Your task to perform on an android device: turn on wifi Image 0: 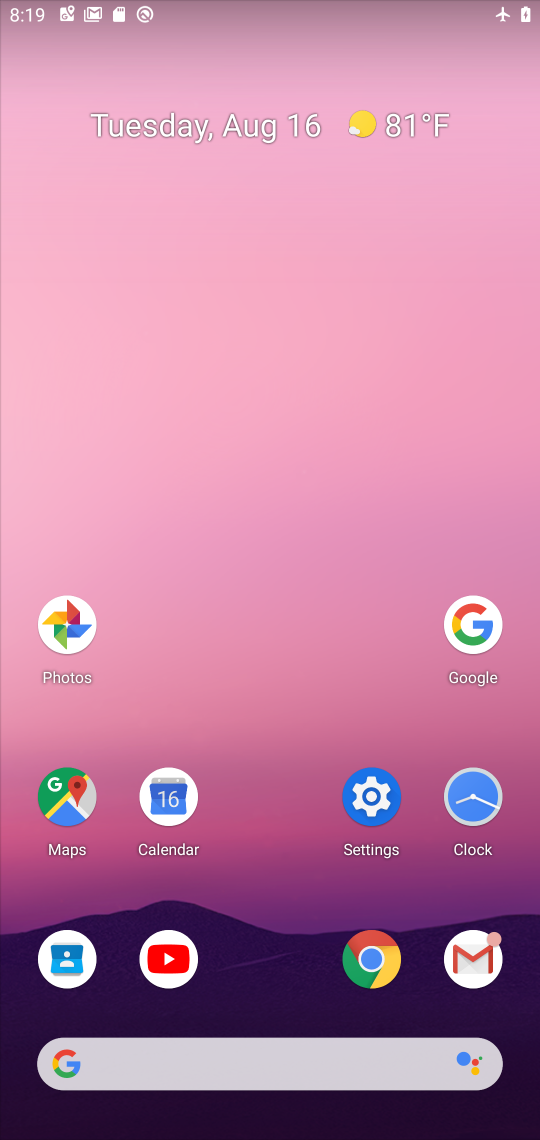
Step 0: click (371, 795)
Your task to perform on an android device: turn on wifi Image 1: 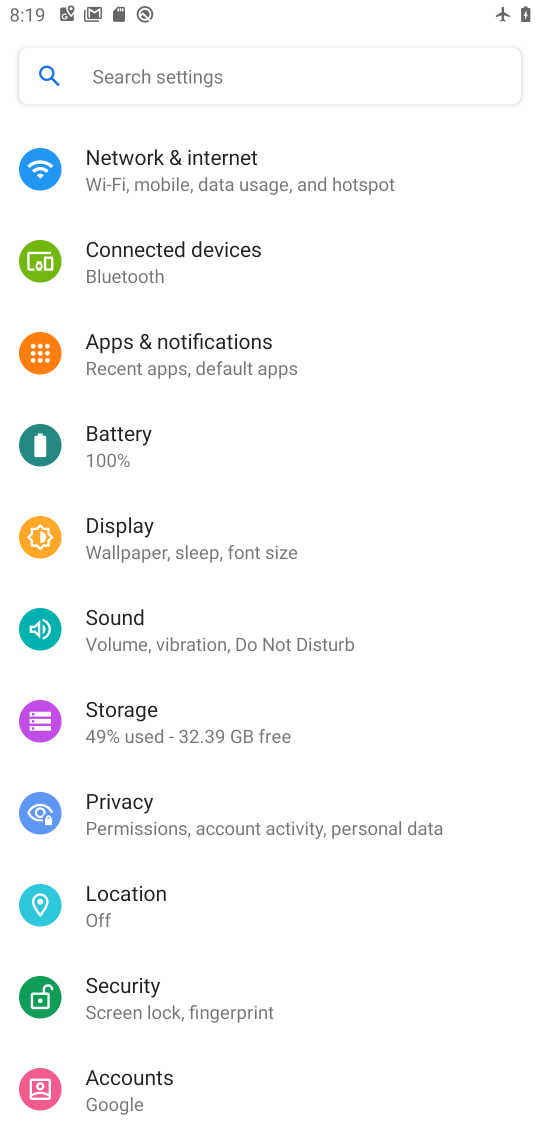
Step 1: click (180, 155)
Your task to perform on an android device: turn on wifi Image 2: 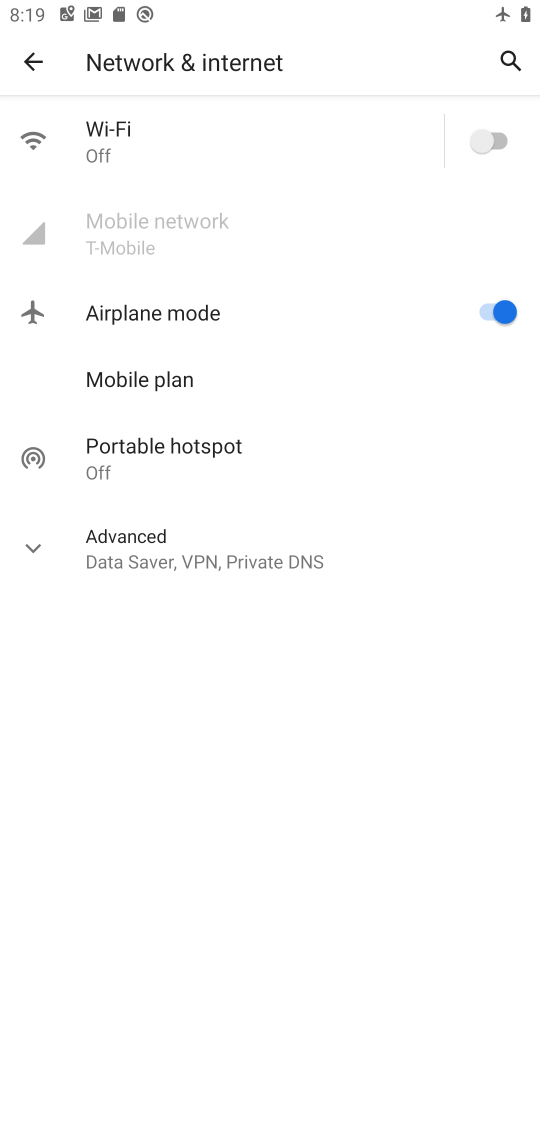
Step 2: click (486, 136)
Your task to perform on an android device: turn on wifi Image 3: 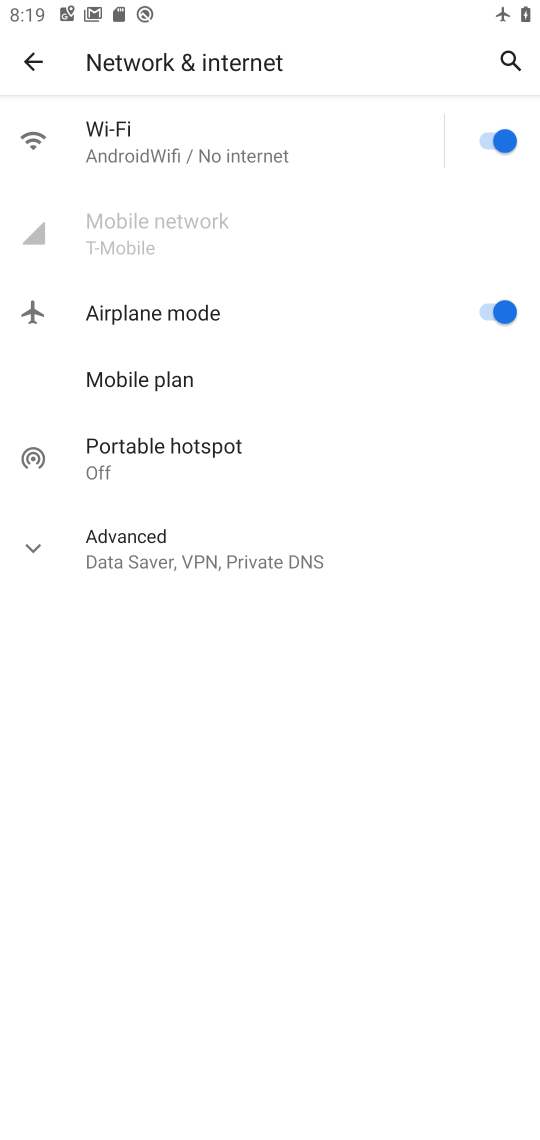
Step 3: task complete